Your task to perform on an android device: create a new album in the google photos Image 0: 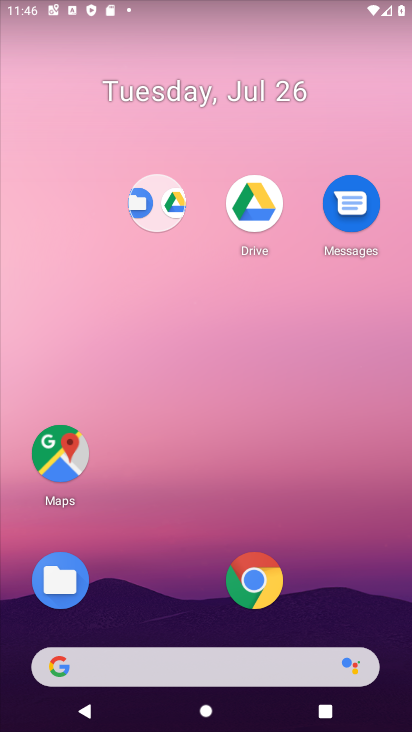
Step 0: drag from (156, 603) to (185, 7)
Your task to perform on an android device: create a new album in the google photos Image 1: 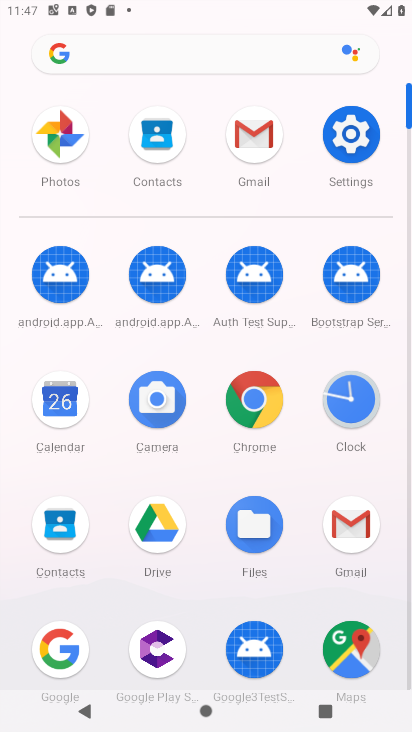
Step 1: click (58, 146)
Your task to perform on an android device: create a new album in the google photos Image 2: 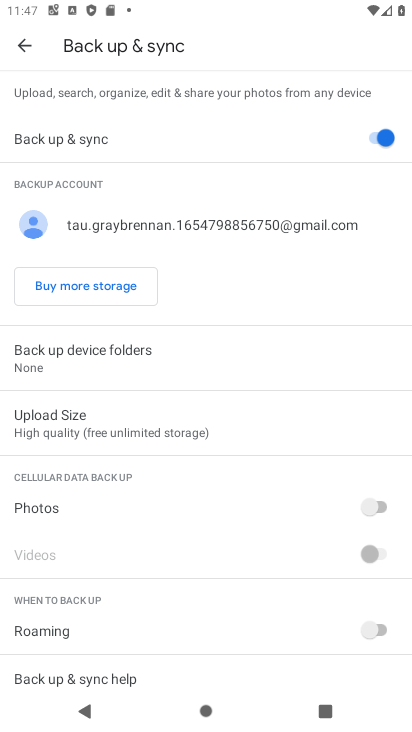
Step 2: click (26, 51)
Your task to perform on an android device: create a new album in the google photos Image 3: 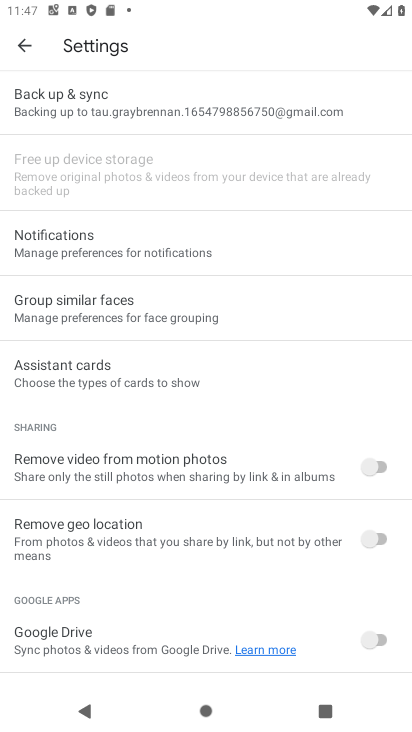
Step 3: click (26, 51)
Your task to perform on an android device: create a new album in the google photos Image 4: 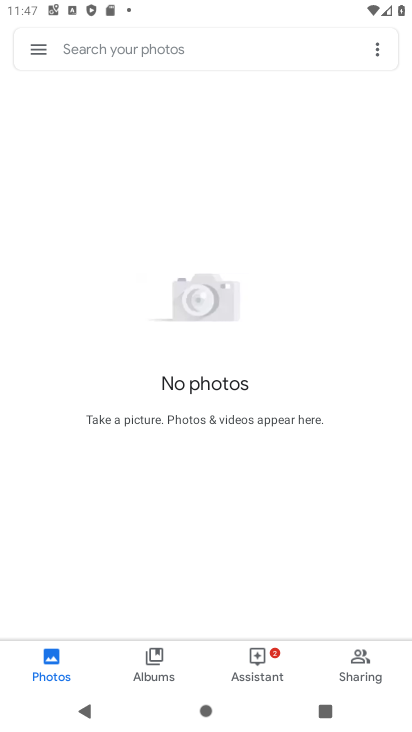
Step 4: task complete